Your task to perform on an android device: Is it going to rain today? Image 0: 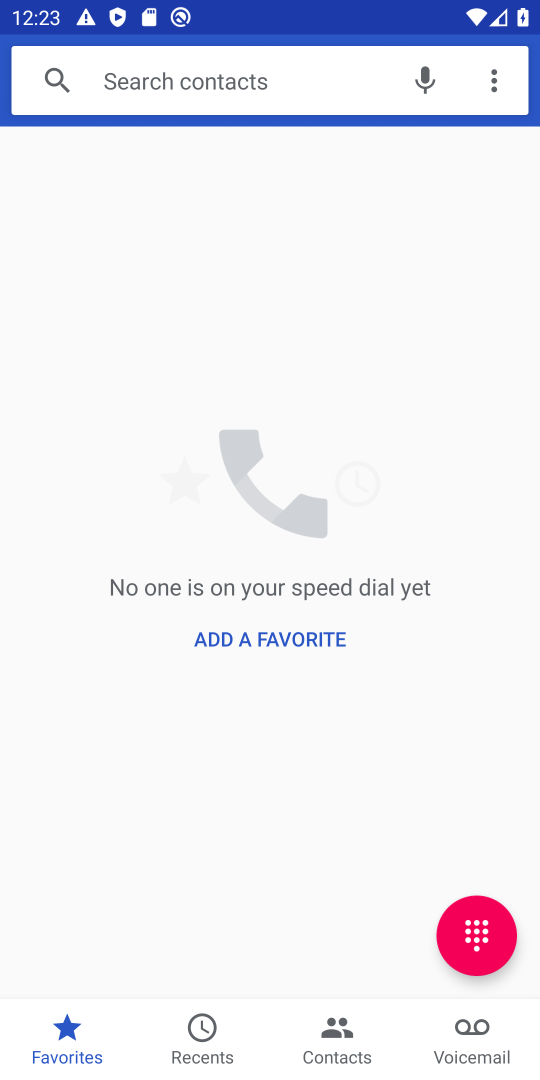
Step 0: press home button
Your task to perform on an android device: Is it going to rain today? Image 1: 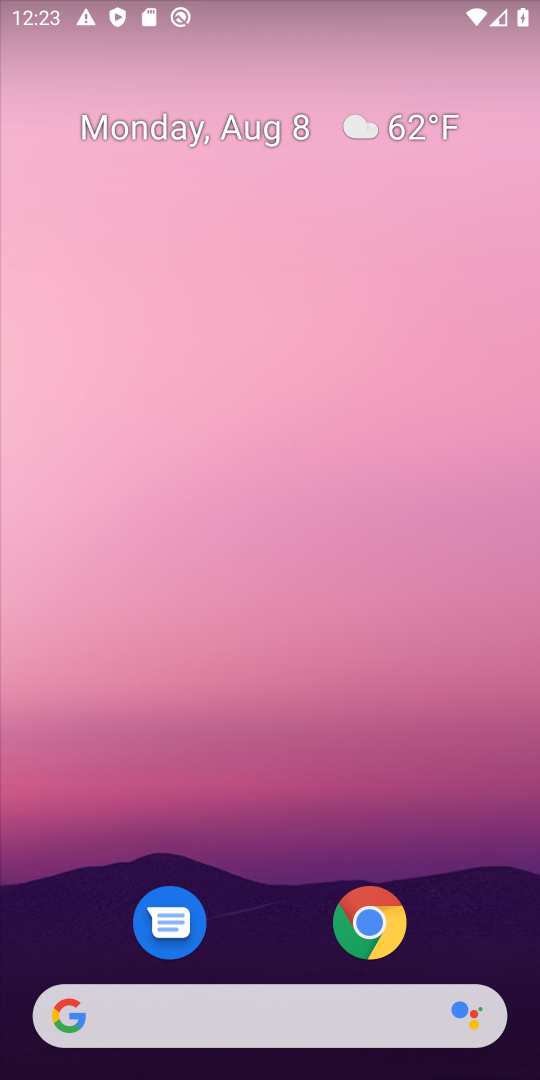
Step 1: press home button
Your task to perform on an android device: Is it going to rain today? Image 2: 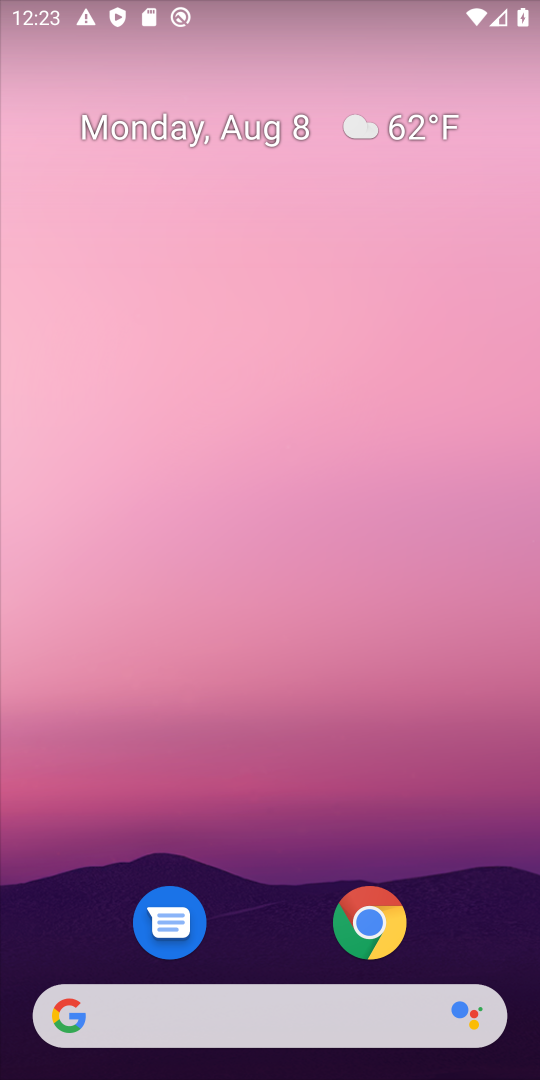
Step 2: click (273, 1011)
Your task to perform on an android device: Is it going to rain today? Image 3: 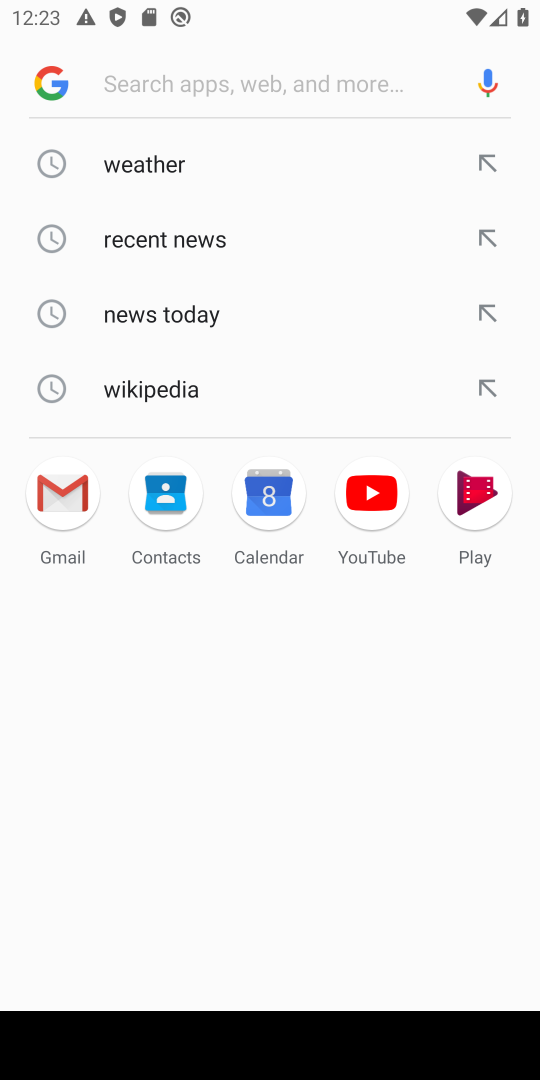
Step 3: click (156, 161)
Your task to perform on an android device: Is it going to rain today? Image 4: 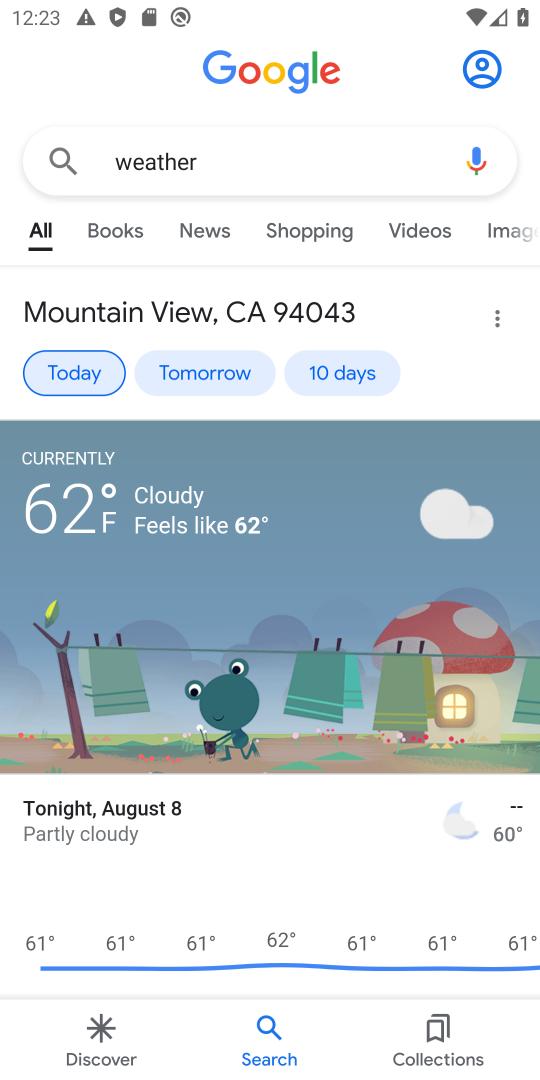
Step 4: task complete